Your task to perform on an android device: Check the news Image 0: 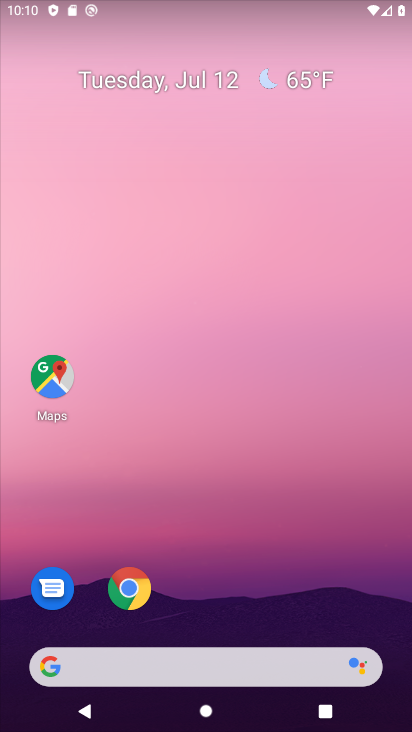
Step 0: click (130, 663)
Your task to perform on an android device: Check the news Image 1: 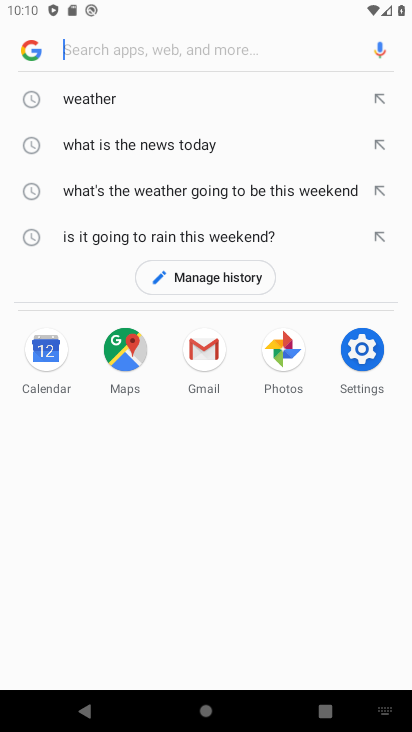
Step 1: type "Check the news"
Your task to perform on an android device: Check the news Image 2: 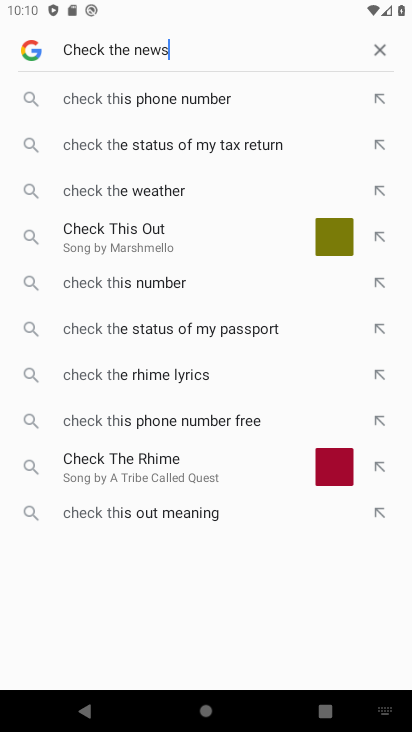
Step 2: type ""
Your task to perform on an android device: Check the news Image 3: 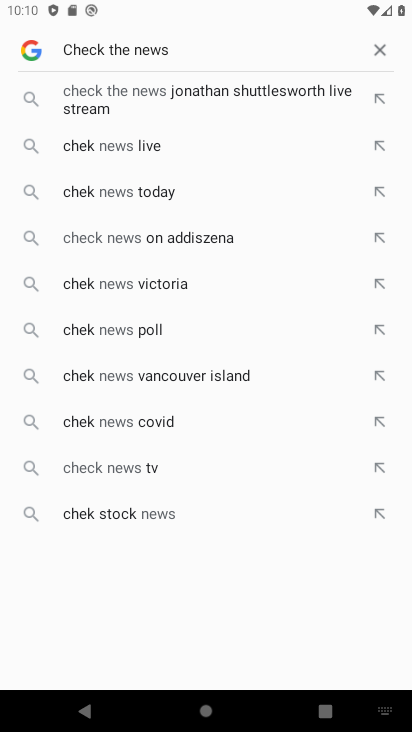
Step 3: type ""
Your task to perform on an android device: Check the news Image 4: 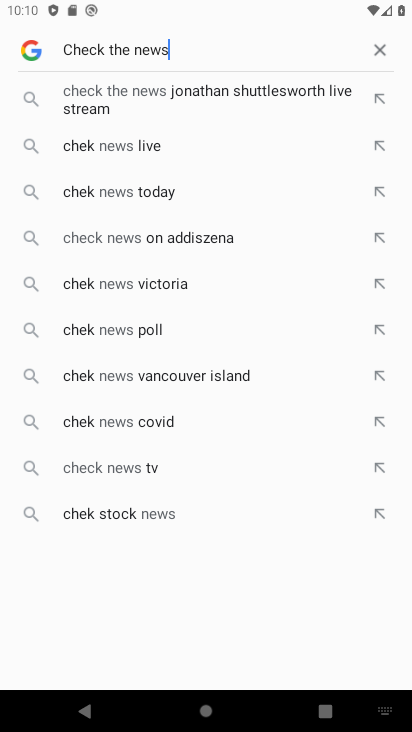
Step 4: type ""
Your task to perform on an android device: Check the news Image 5: 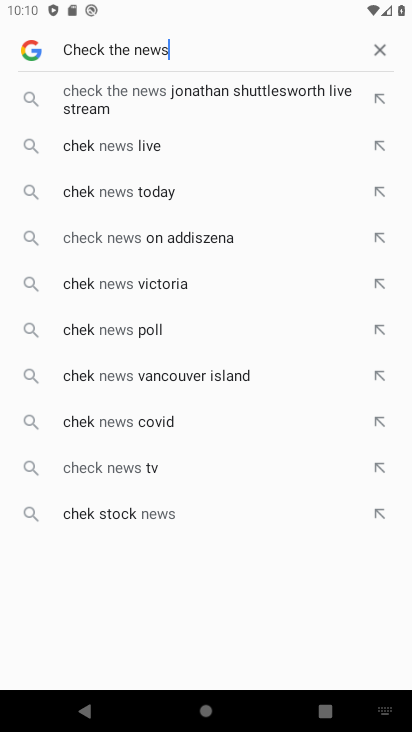
Step 5: task complete